Your task to perform on an android device: Go to Android settings Image 0: 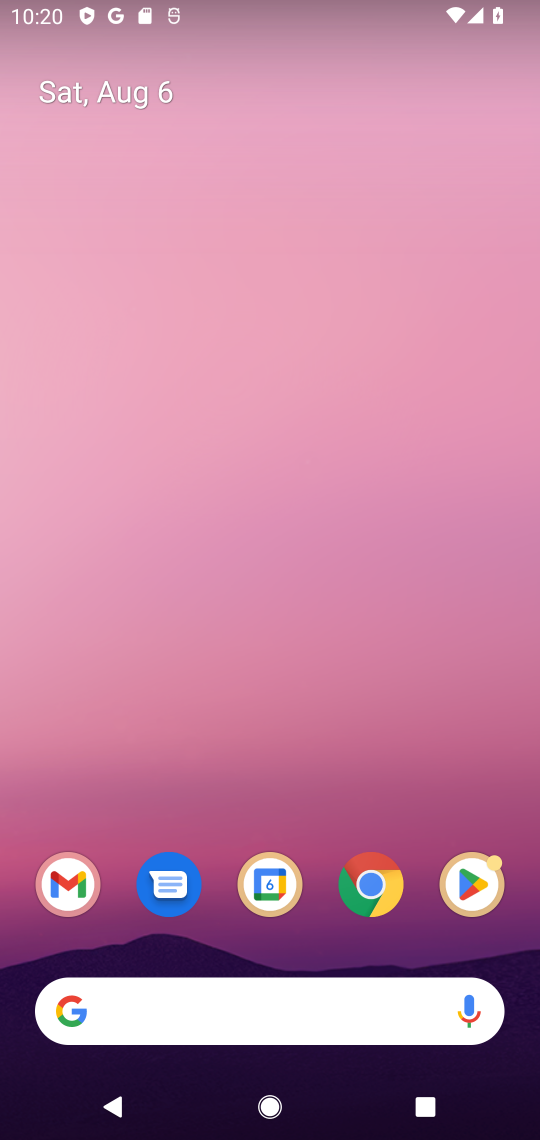
Step 0: drag from (422, 947) to (403, 168)
Your task to perform on an android device: Go to Android settings Image 1: 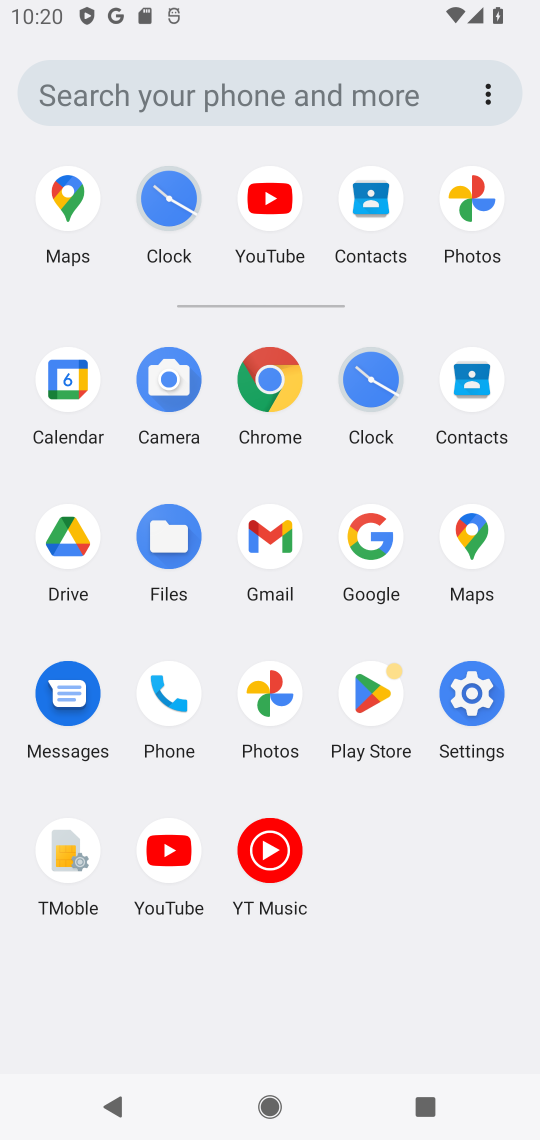
Step 1: click (467, 683)
Your task to perform on an android device: Go to Android settings Image 2: 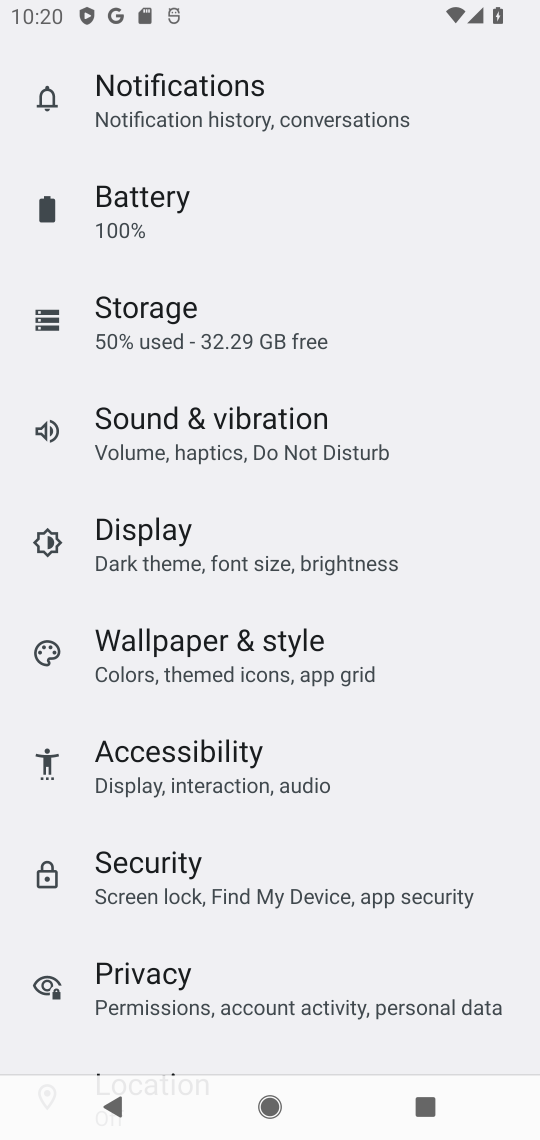
Step 2: drag from (380, 954) to (404, 188)
Your task to perform on an android device: Go to Android settings Image 3: 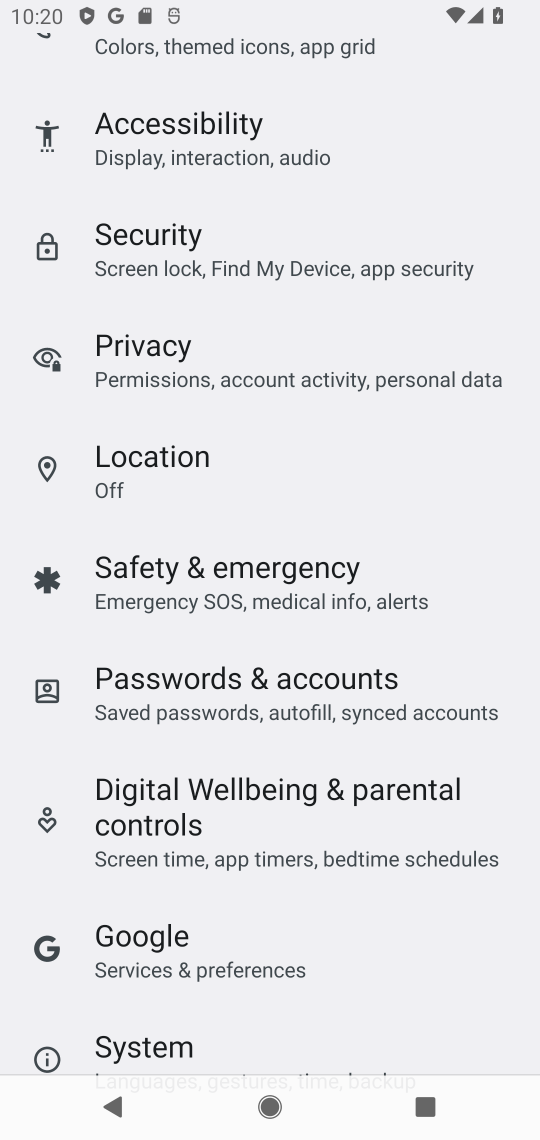
Step 3: drag from (451, 942) to (420, 335)
Your task to perform on an android device: Go to Android settings Image 4: 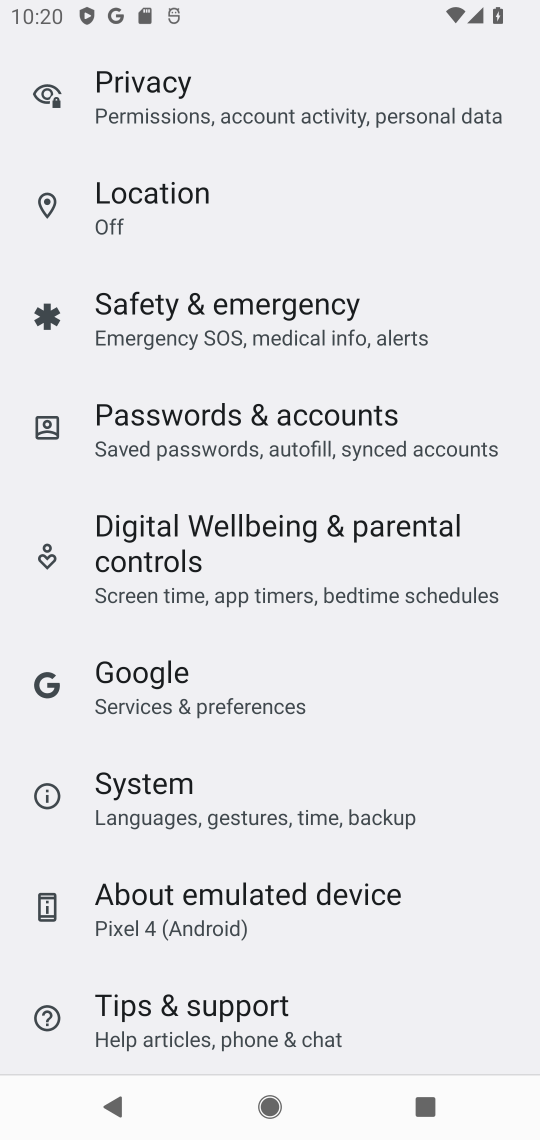
Step 4: click (182, 913)
Your task to perform on an android device: Go to Android settings Image 5: 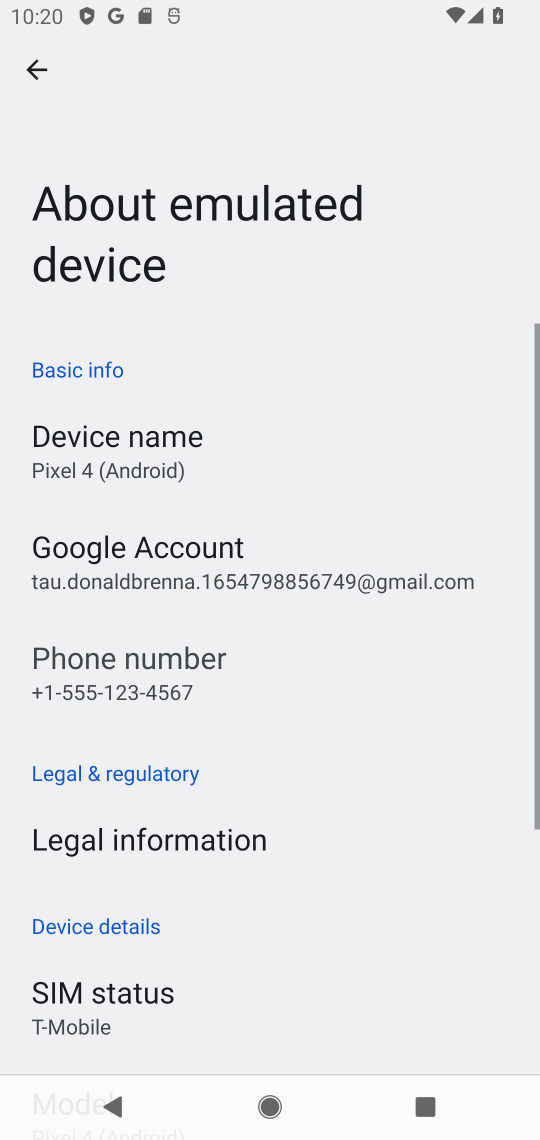
Step 5: task complete